Your task to perform on an android device: toggle notifications settings in the gmail app Image 0: 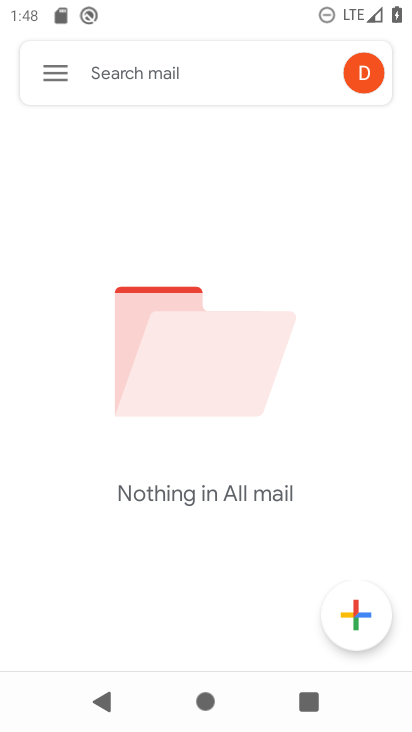
Step 0: press home button
Your task to perform on an android device: toggle notifications settings in the gmail app Image 1: 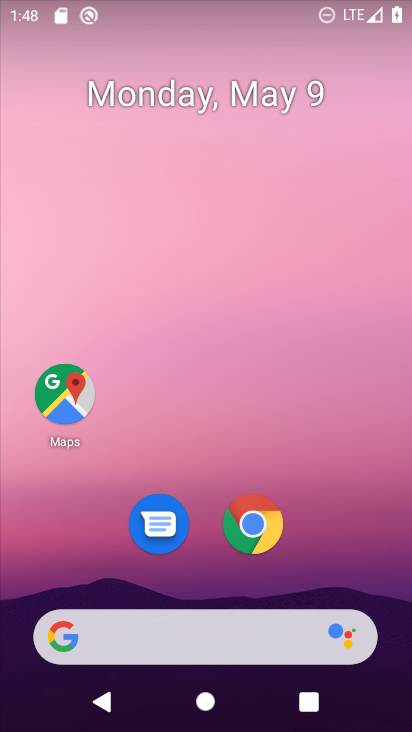
Step 1: drag from (272, 469) to (200, 49)
Your task to perform on an android device: toggle notifications settings in the gmail app Image 2: 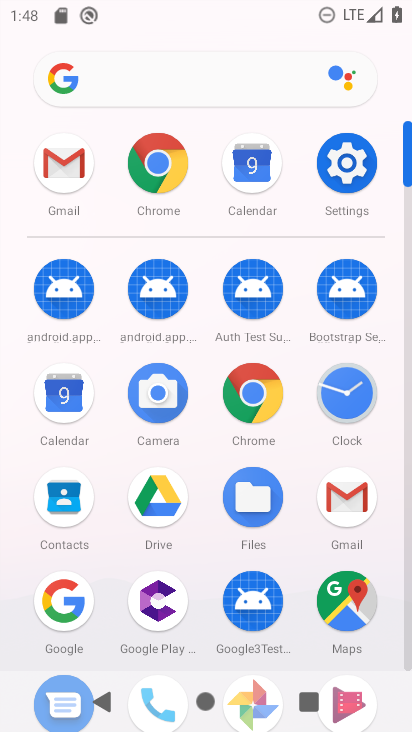
Step 2: click (58, 163)
Your task to perform on an android device: toggle notifications settings in the gmail app Image 3: 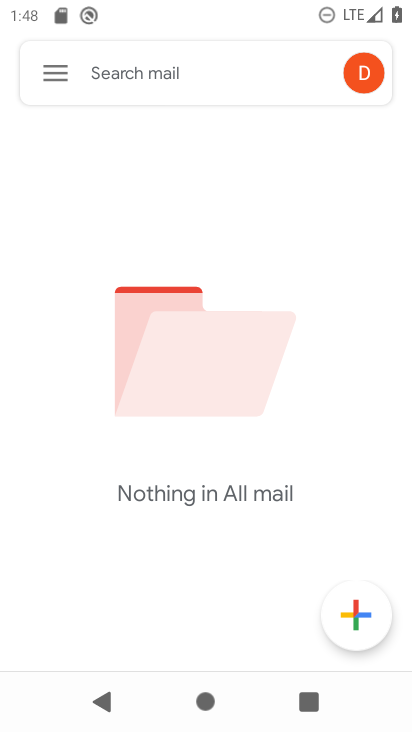
Step 3: click (56, 66)
Your task to perform on an android device: toggle notifications settings in the gmail app Image 4: 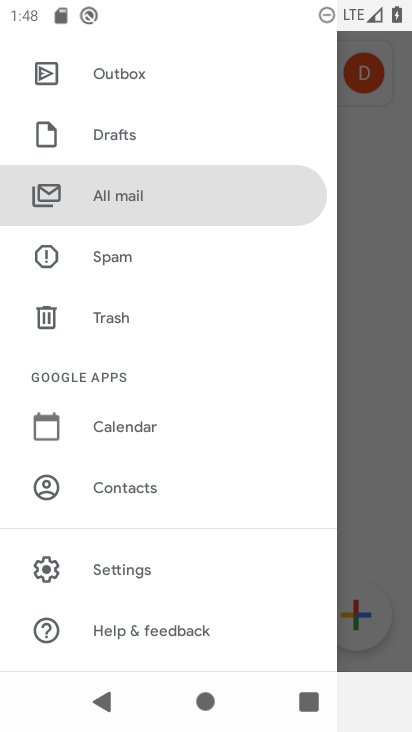
Step 4: click (170, 567)
Your task to perform on an android device: toggle notifications settings in the gmail app Image 5: 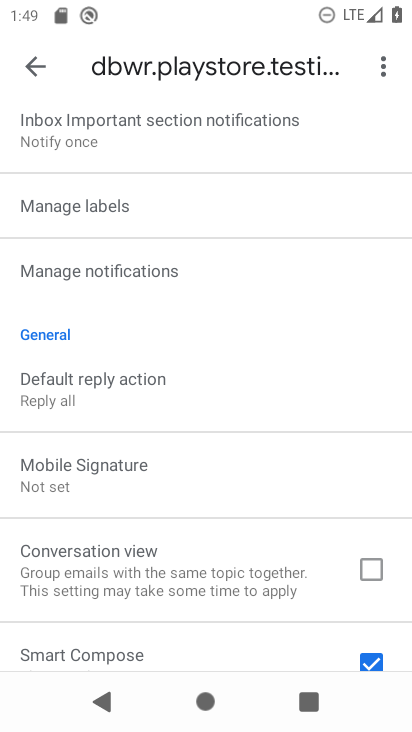
Step 5: click (165, 268)
Your task to perform on an android device: toggle notifications settings in the gmail app Image 6: 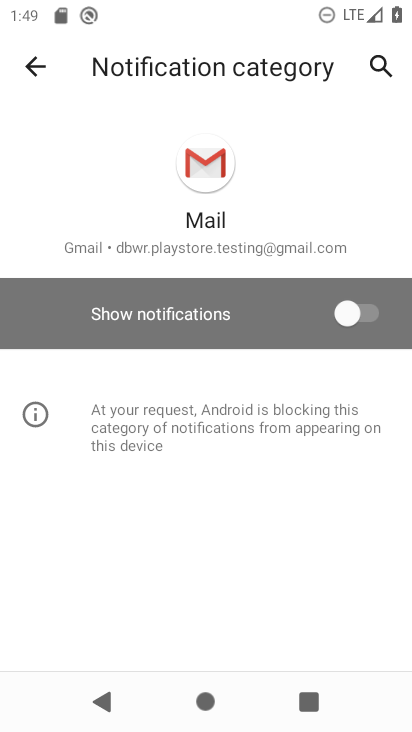
Step 6: click (363, 318)
Your task to perform on an android device: toggle notifications settings in the gmail app Image 7: 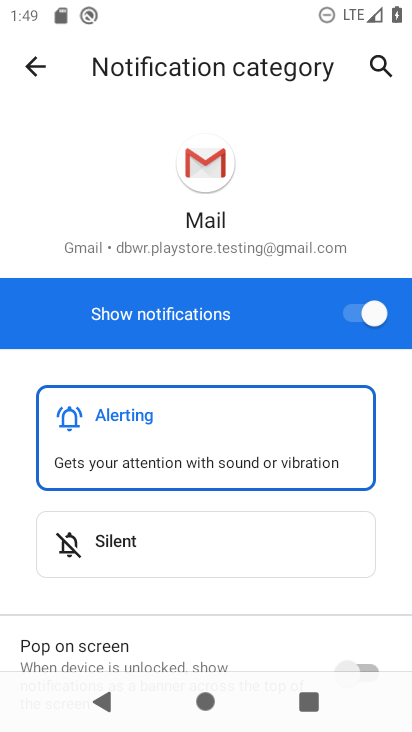
Step 7: task complete